Your task to perform on an android device: Search for Mexican restaurants on Maps Image 0: 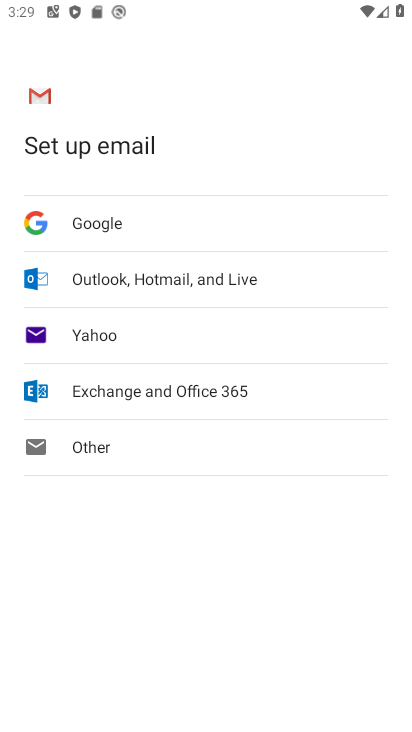
Step 0: press home button
Your task to perform on an android device: Search for Mexican restaurants on Maps Image 1: 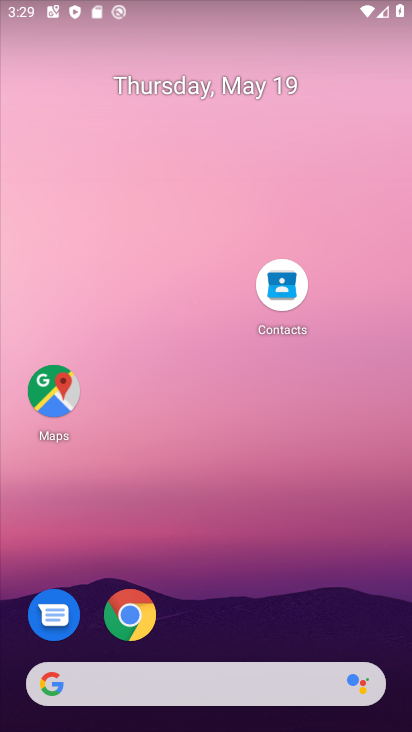
Step 1: drag from (274, 578) to (335, 123)
Your task to perform on an android device: Search for Mexican restaurants on Maps Image 2: 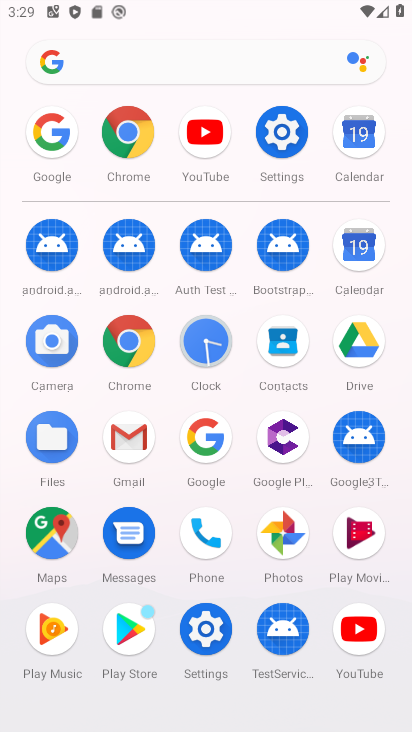
Step 2: click (68, 532)
Your task to perform on an android device: Search for Mexican restaurants on Maps Image 3: 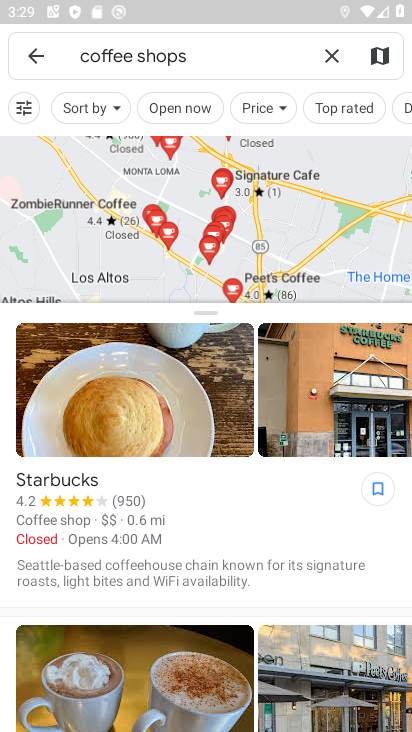
Step 3: click (338, 60)
Your task to perform on an android device: Search for Mexican restaurants on Maps Image 4: 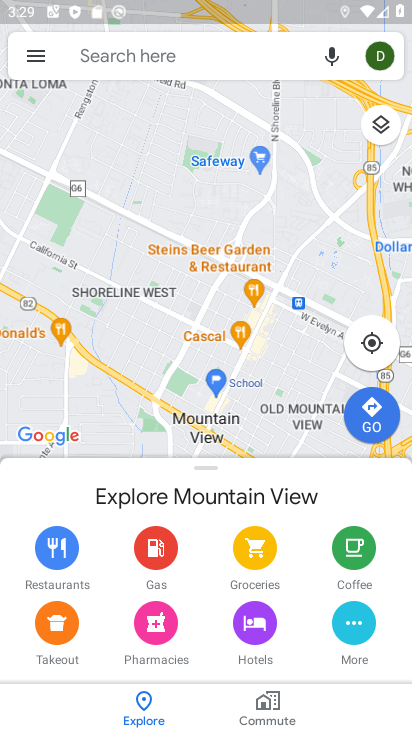
Step 4: click (206, 58)
Your task to perform on an android device: Search for Mexican restaurants on Maps Image 5: 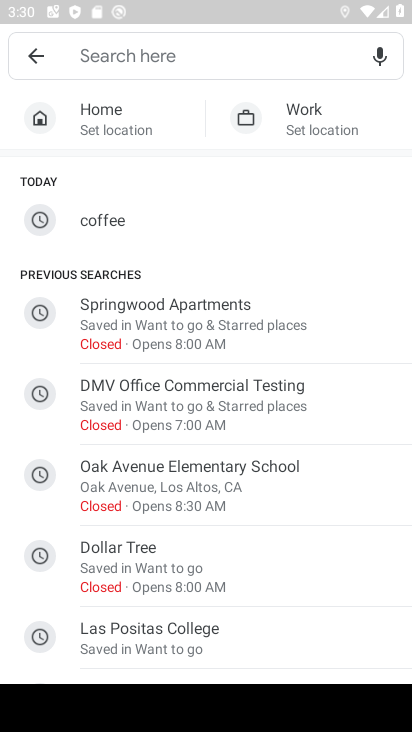
Step 5: type "mexican"
Your task to perform on an android device: Search for Mexican restaurants on Maps Image 6: 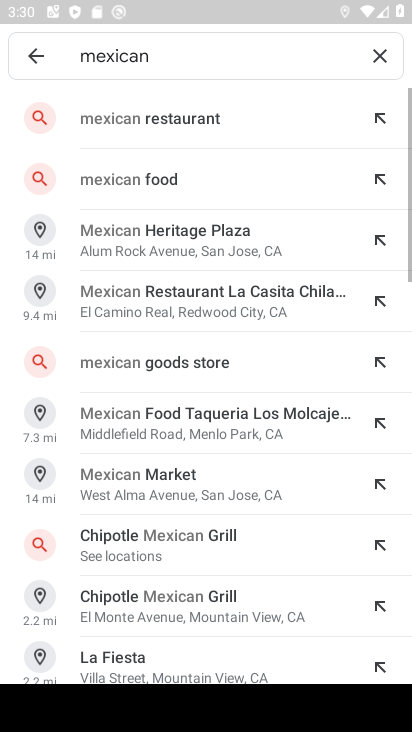
Step 6: click (271, 122)
Your task to perform on an android device: Search for Mexican restaurants on Maps Image 7: 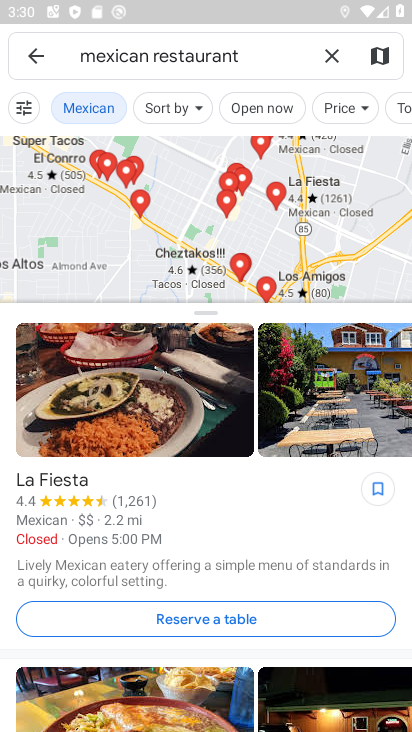
Step 7: task complete